Your task to perform on an android device: Show me recent news Image 0: 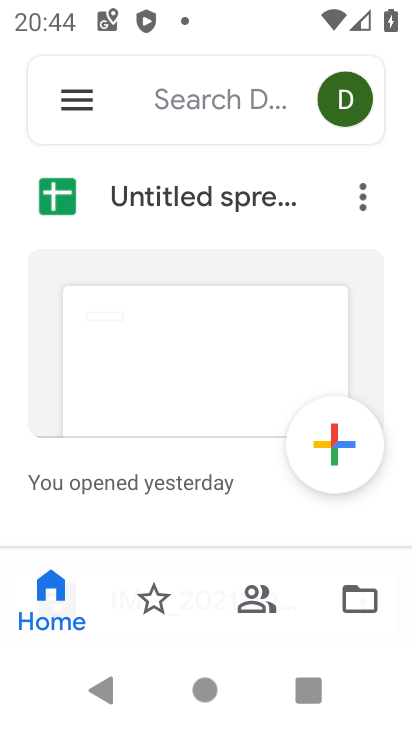
Step 0: press home button
Your task to perform on an android device: Show me recent news Image 1: 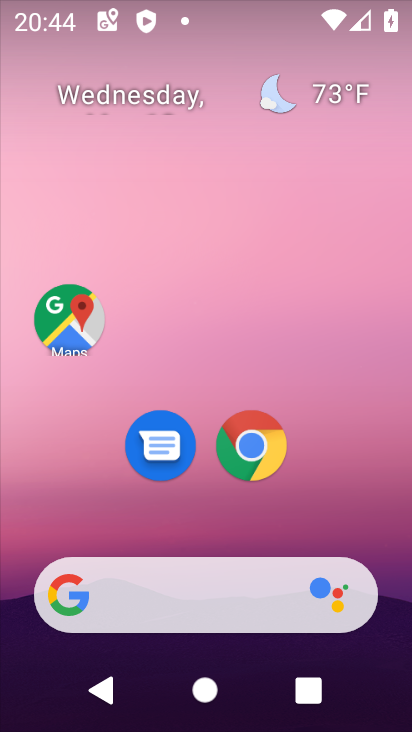
Step 1: click (255, 449)
Your task to perform on an android device: Show me recent news Image 2: 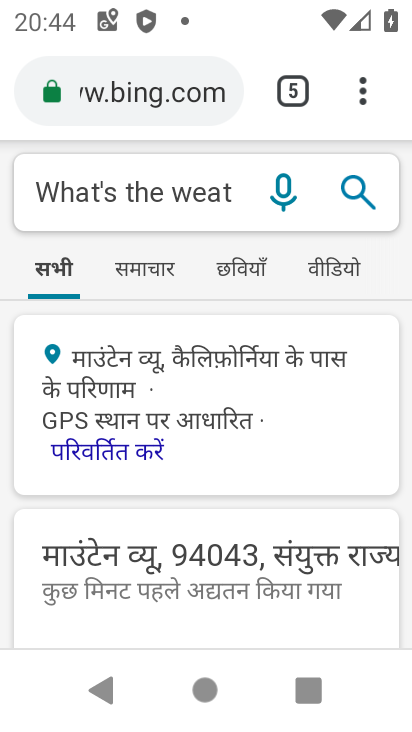
Step 2: click (153, 611)
Your task to perform on an android device: Show me recent news Image 3: 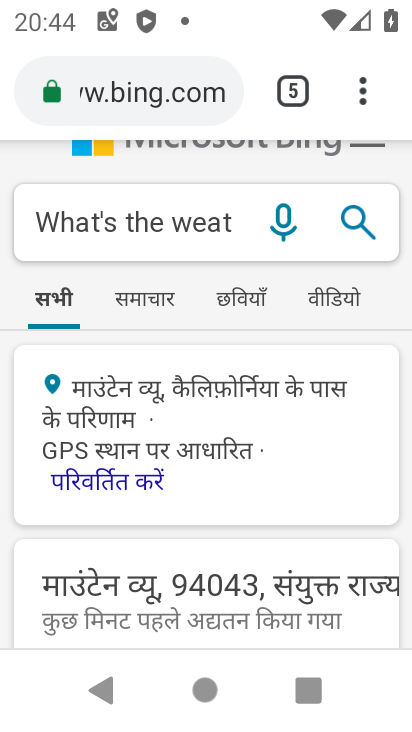
Step 3: click (337, 88)
Your task to perform on an android device: Show me recent news Image 4: 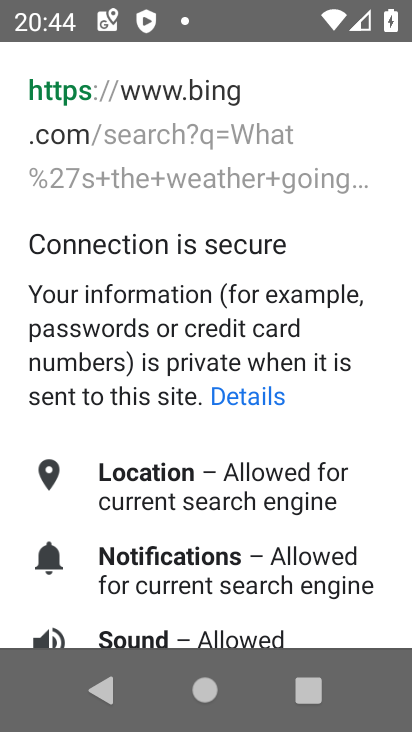
Step 4: press back button
Your task to perform on an android device: Show me recent news Image 5: 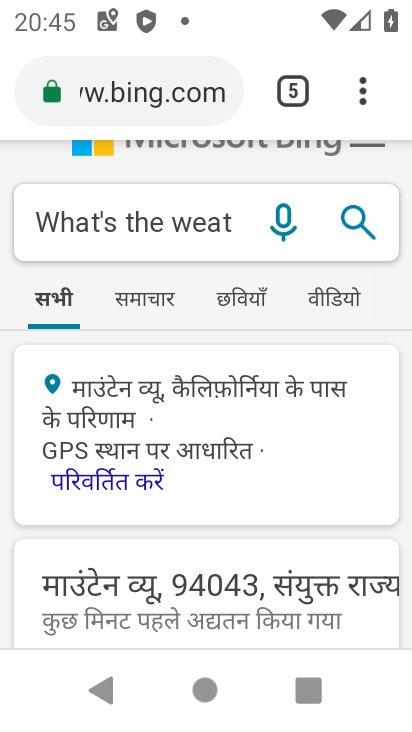
Step 5: click (357, 93)
Your task to perform on an android device: Show me recent news Image 6: 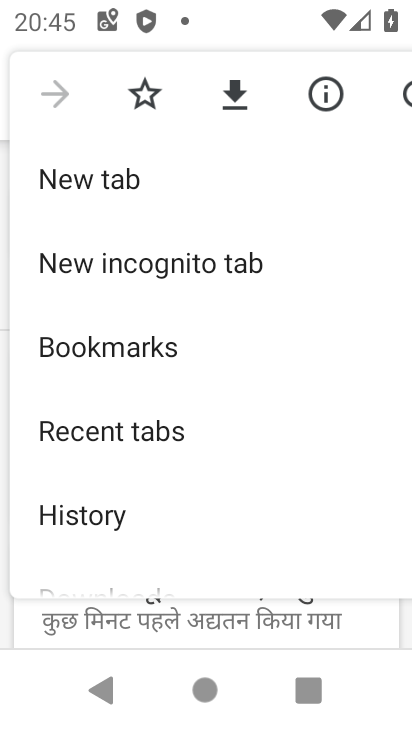
Step 6: click (146, 179)
Your task to perform on an android device: Show me recent news Image 7: 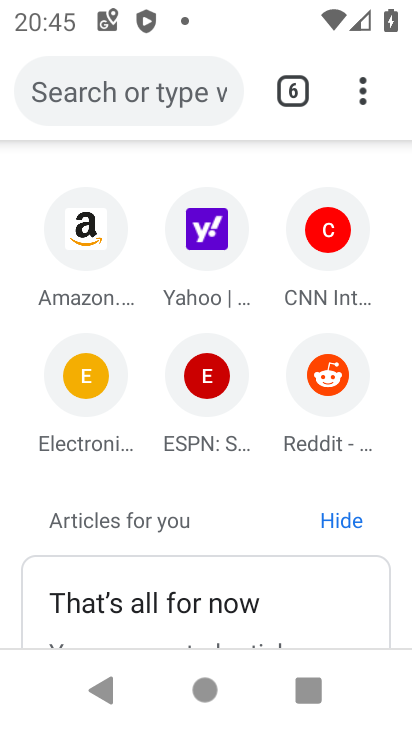
Step 7: click (139, 87)
Your task to perform on an android device: Show me recent news Image 8: 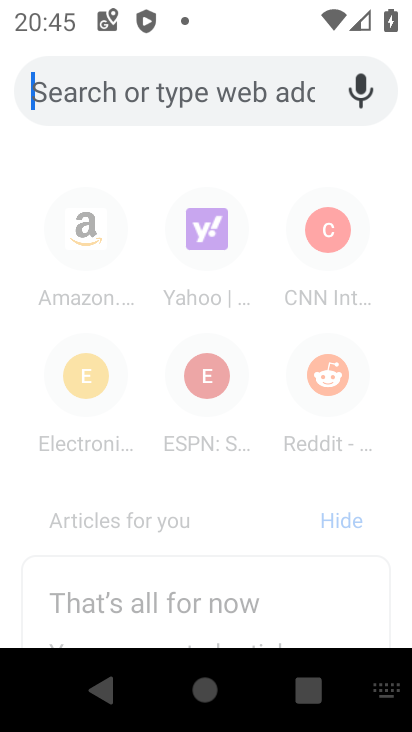
Step 8: type "Show me recent news"
Your task to perform on an android device: Show me recent news Image 9: 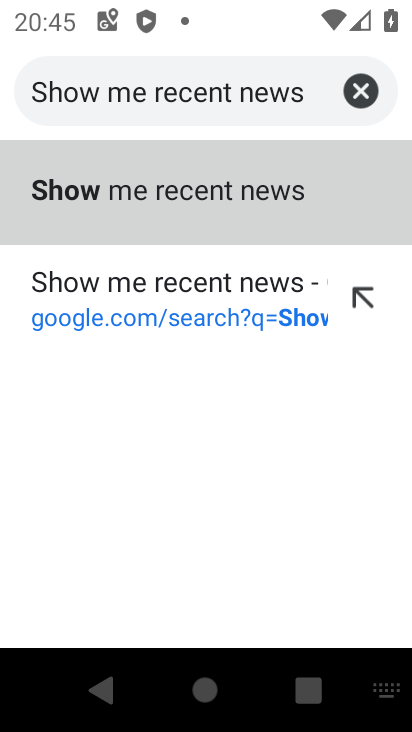
Step 9: click (141, 181)
Your task to perform on an android device: Show me recent news Image 10: 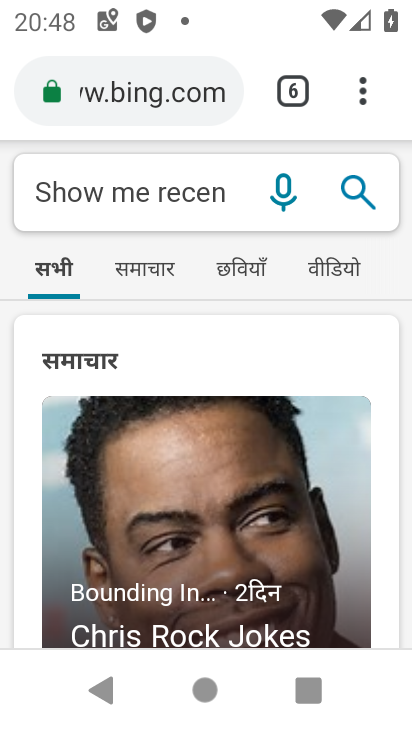
Step 10: task complete